Your task to perform on an android device: turn on notifications settings in the gmail app Image 0: 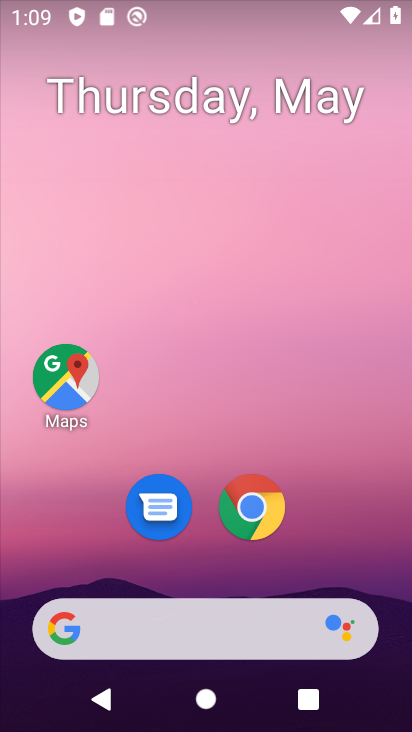
Step 0: drag from (332, 542) to (300, 197)
Your task to perform on an android device: turn on notifications settings in the gmail app Image 1: 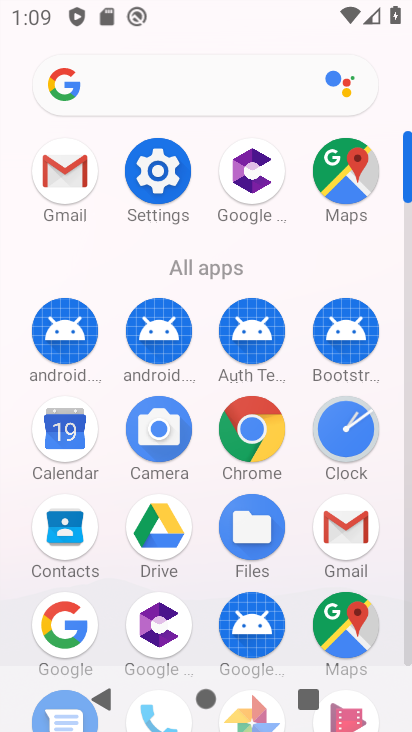
Step 1: click (349, 518)
Your task to perform on an android device: turn on notifications settings in the gmail app Image 2: 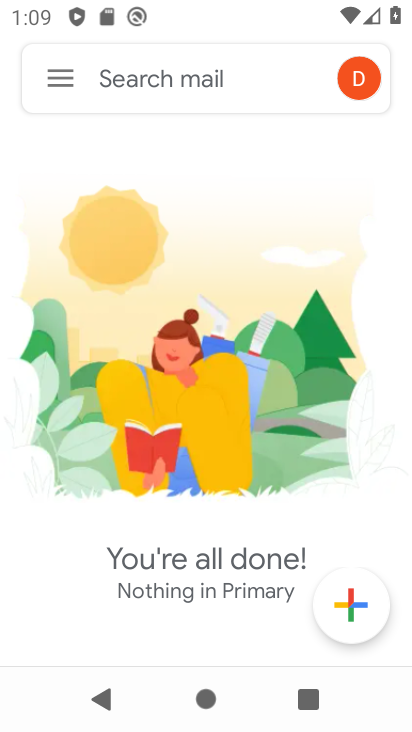
Step 2: click (61, 65)
Your task to perform on an android device: turn on notifications settings in the gmail app Image 3: 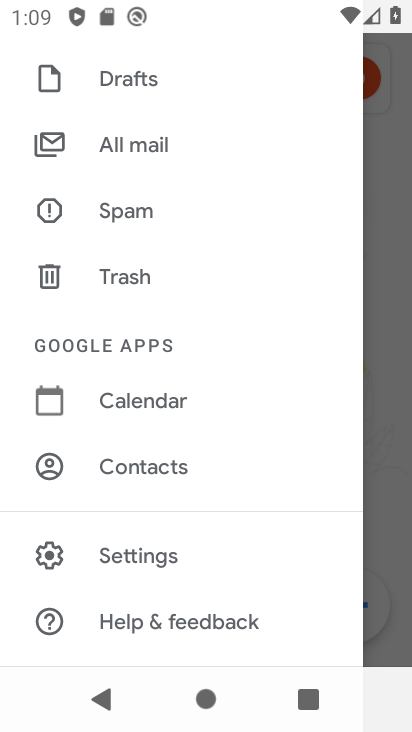
Step 3: click (183, 548)
Your task to perform on an android device: turn on notifications settings in the gmail app Image 4: 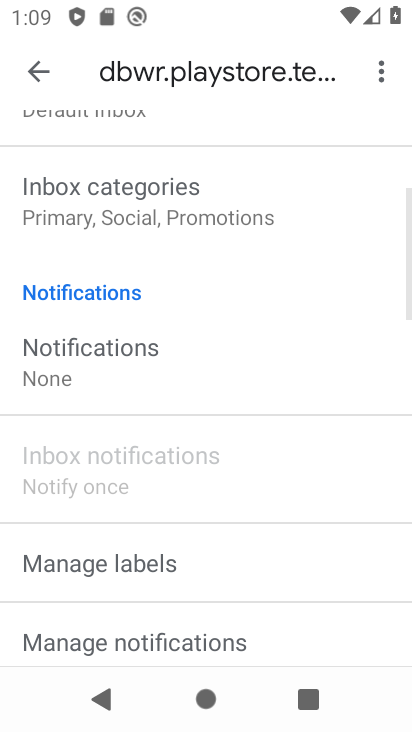
Step 4: click (135, 366)
Your task to perform on an android device: turn on notifications settings in the gmail app Image 5: 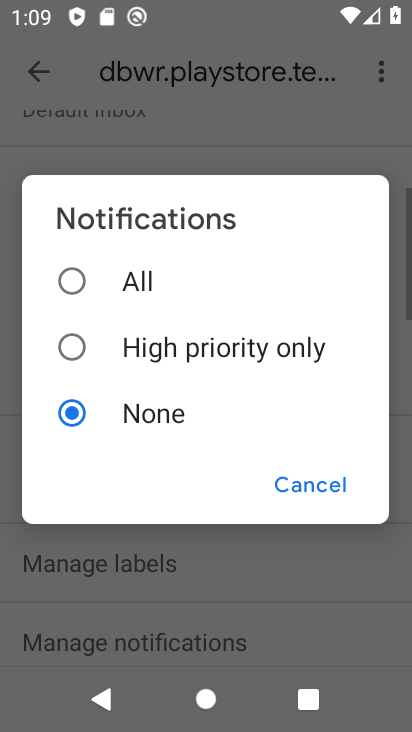
Step 5: click (125, 259)
Your task to perform on an android device: turn on notifications settings in the gmail app Image 6: 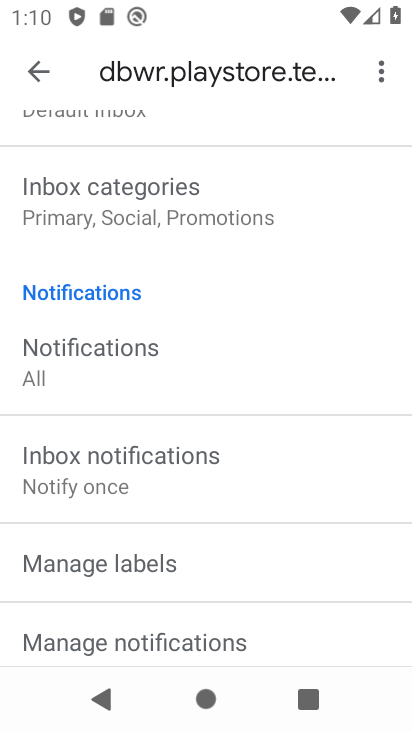
Step 6: task complete